Your task to perform on an android device: Go to sound settings Image 0: 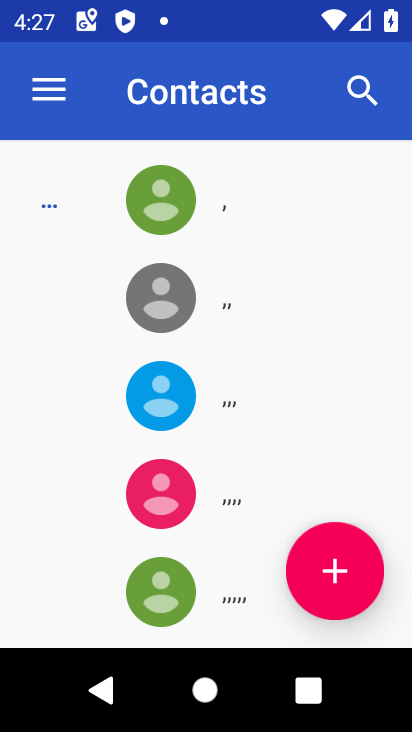
Step 0: task complete